Your task to perform on an android device: see creations saved in the google photos Image 0: 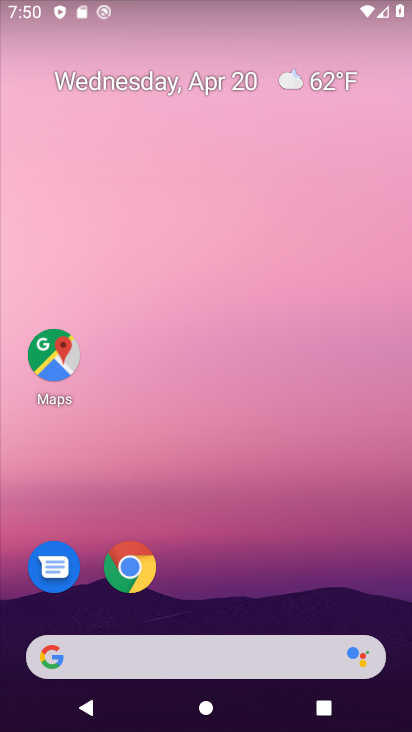
Step 0: drag from (265, 574) to (306, 45)
Your task to perform on an android device: see creations saved in the google photos Image 1: 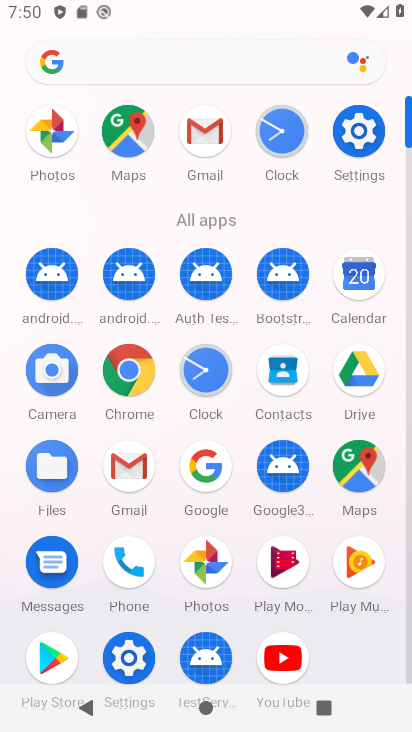
Step 1: click (44, 151)
Your task to perform on an android device: see creations saved in the google photos Image 2: 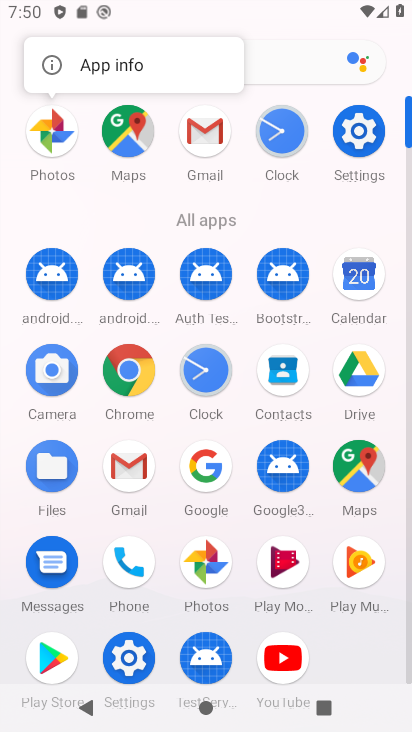
Step 2: click (53, 137)
Your task to perform on an android device: see creations saved in the google photos Image 3: 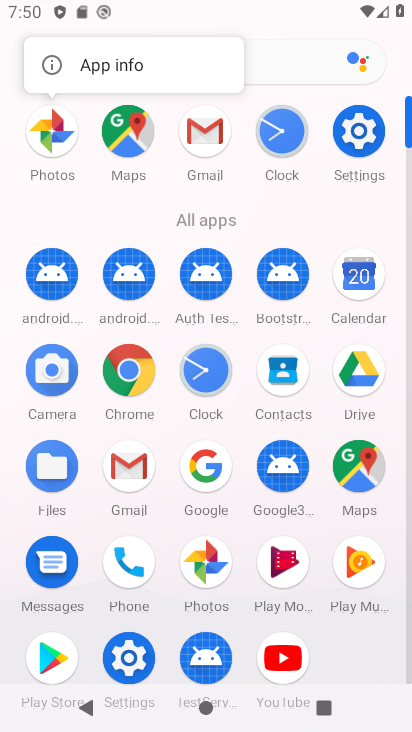
Step 3: click (54, 131)
Your task to perform on an android device: see creations saved in the google photos Image 4: 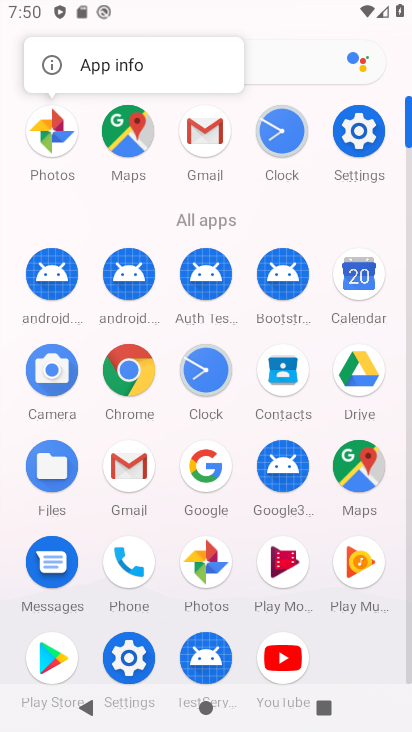
Step 4: click (54, 131)
Your task to perform on an android device: see creations saved in the google photos Image 5: 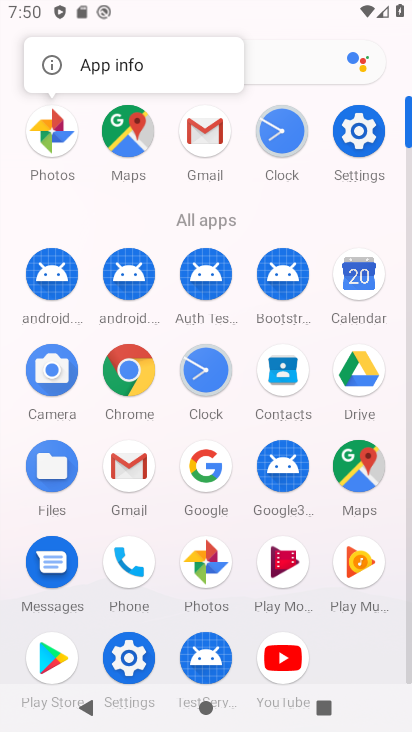
Step 5: click (54, 131)
Your task to perform on an android device: see creations saved in the google photos Image 6: 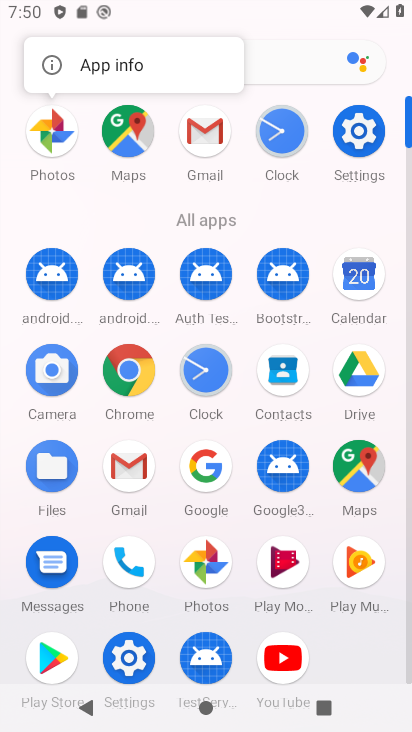
Step 6: click (54, 131)
Your task to perform on an android device: see creations saved in the google photos Image 7: 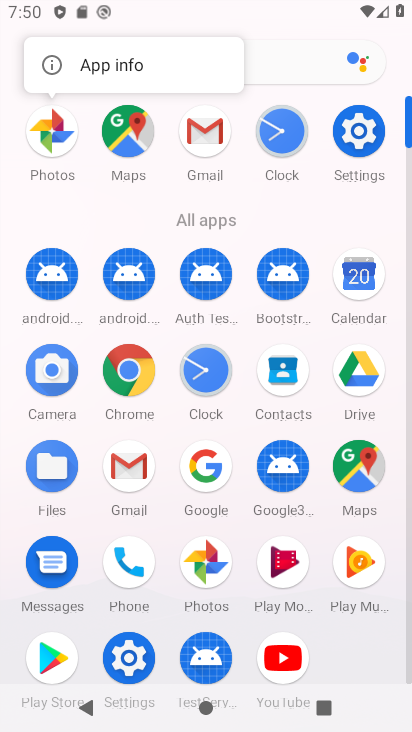
Step 7: click (54, 131)
Your task to perform on an android device: see creations saved in the google photos Image 8: 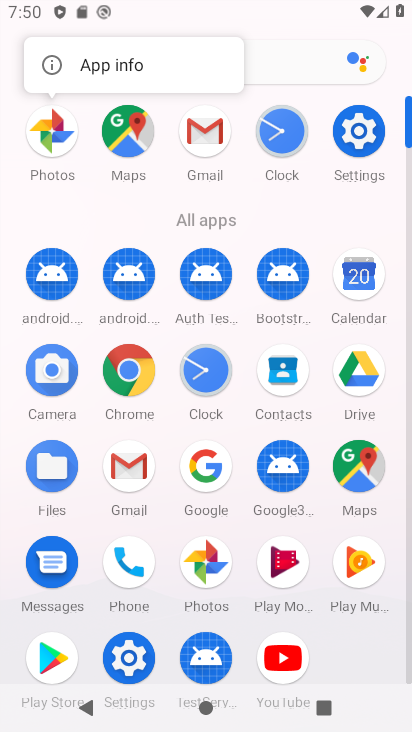
Step 8: click (54, 131)
Your task to perform on an android device: see creations saved in the google photos Image 9: 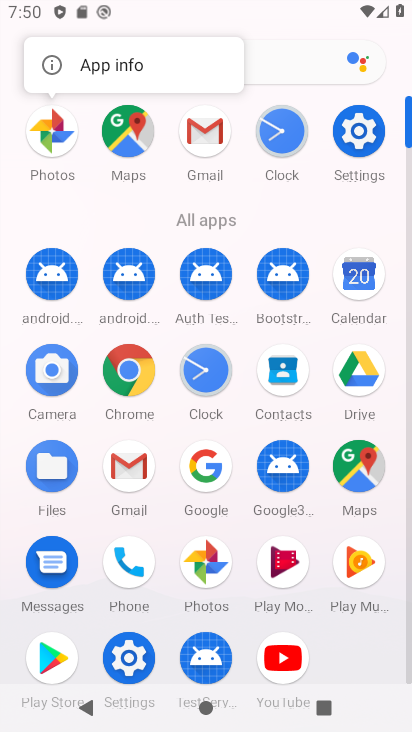
Step 9: click (54, 131)
Your task to perform on an android device: see creations saved in the google photos Image 10: 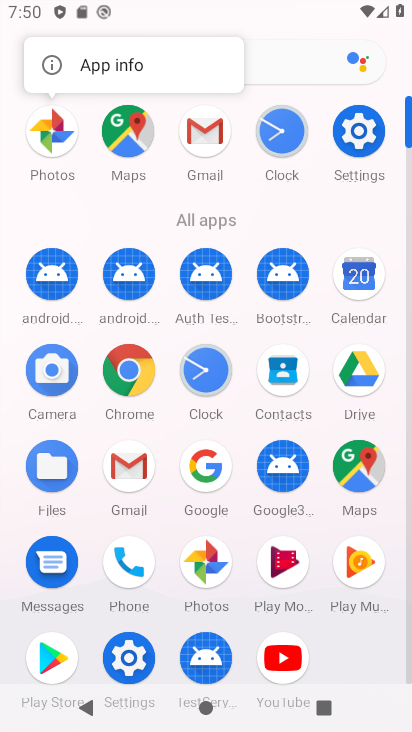
Step 10: click (213, 564)
Your task to perform on an android device: see creations saved in the google photos Image 11: 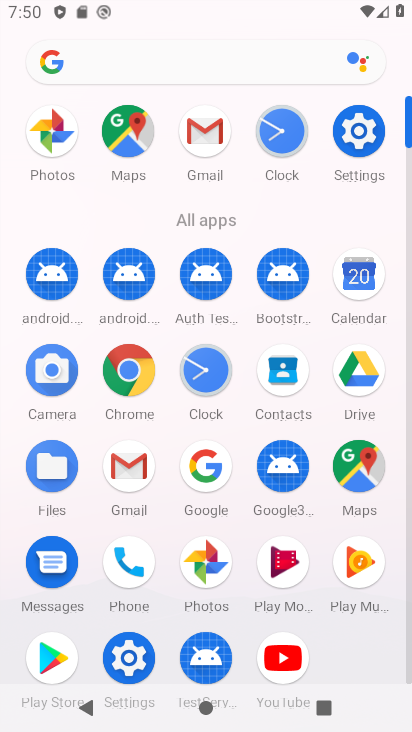
Step 11: click (202, 557)
Your task to perform on an android device: see creations saved in the google photos Image 12: 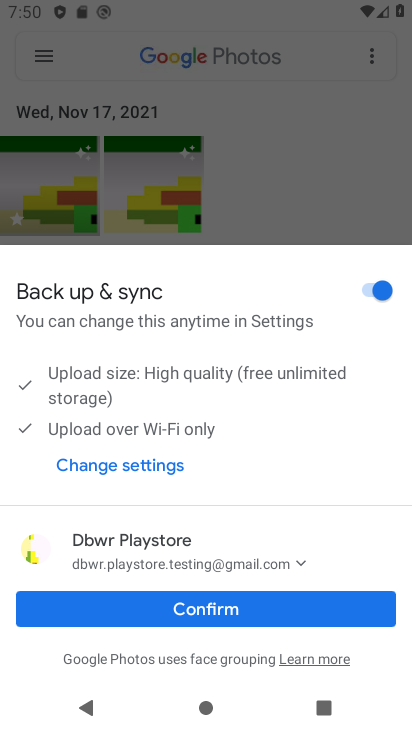
Step 12: click (214, 615)
Your task to perform on an android device: see creations saved in the google photos Image 13: 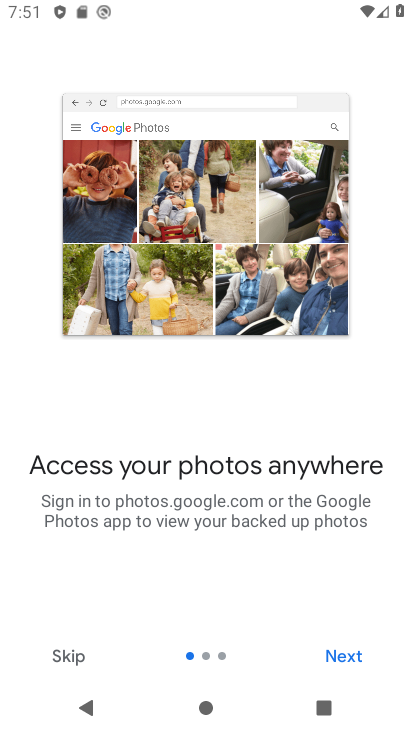
Step 13: click (64, 654)
Your task to perform on an android device: see creations saved in the google photos Image 14: 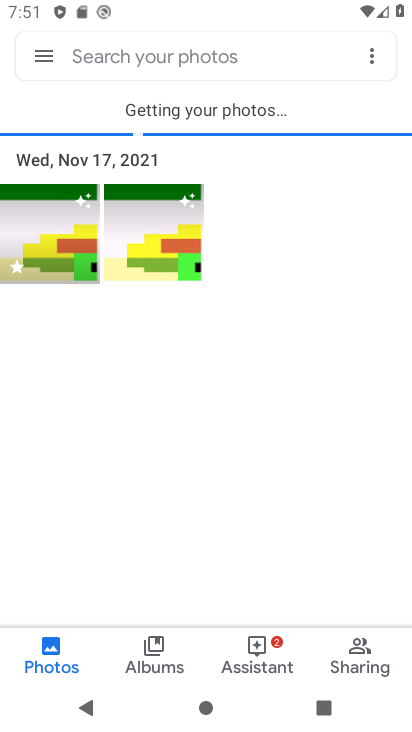
Step 14: click (150, 652)
Your task to perform on an android device: see creations saved in the google photos Image 15: 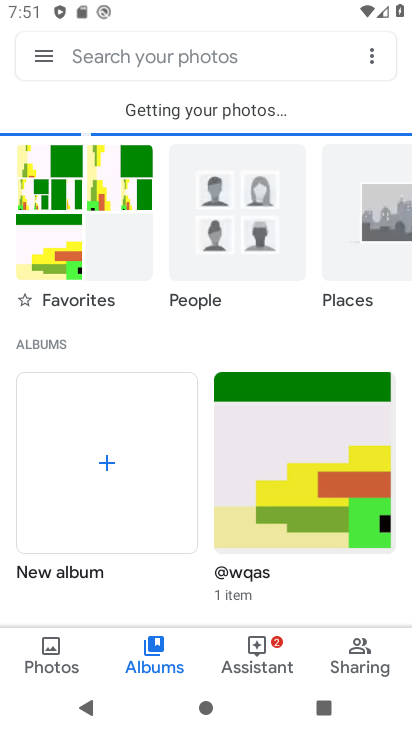
Step 15: task complete